Your task to perform on an android device: clear history in the chrome app Image 0: 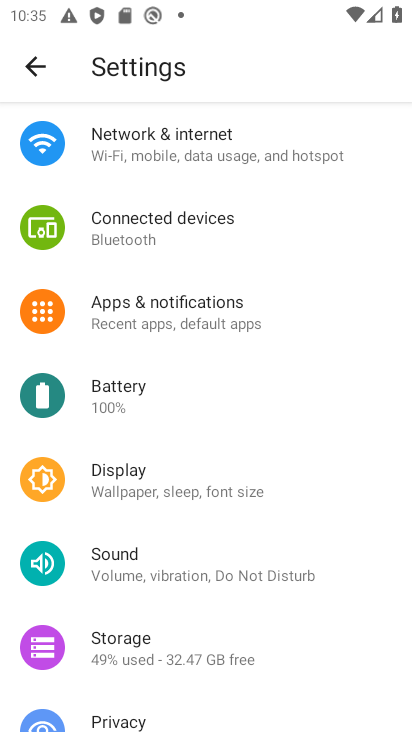
Step 0: press home button
Your task to perform on an android device: clear history in the chrome app Image 1: 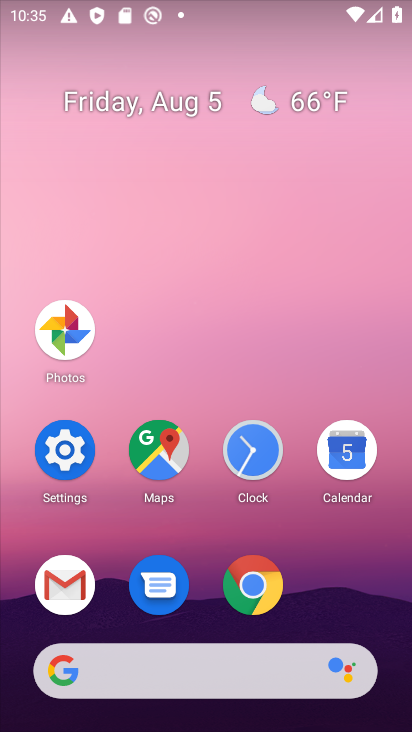
Step 1: click (253, 579)
Your task to perform on an android device: clear history in the chrome app Image 2: 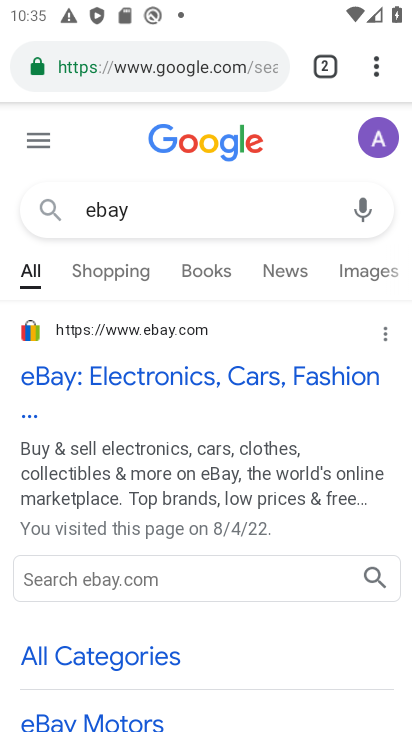
Step 2: click (380, 64)
Your task to perform on an android device: clear history in the chrome app Image 3: 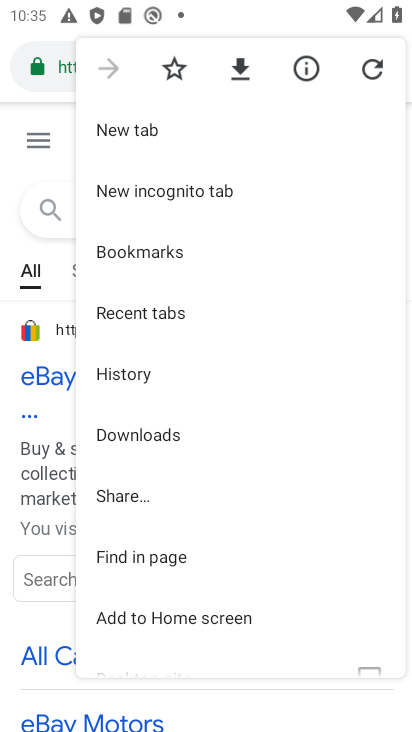
Step 3: click (130, 364)
Your task to perform on an android device: clear history in the chrome app Image 4: 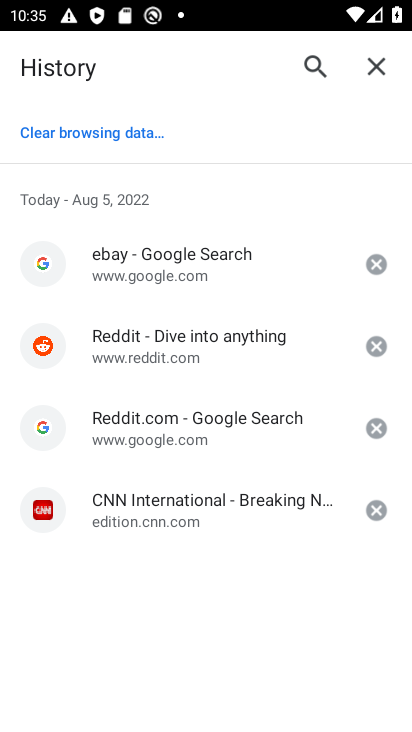
Step 4: click (94, 132)
Your task to perform on an android device: clear history in the chrome app Image 5: 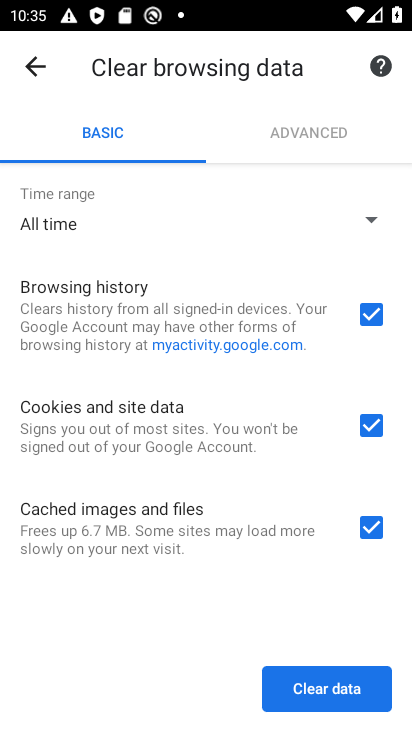
Step 5: click (332, 693)
Your task to perform on an android device: clear history in the chrome app Image 6: 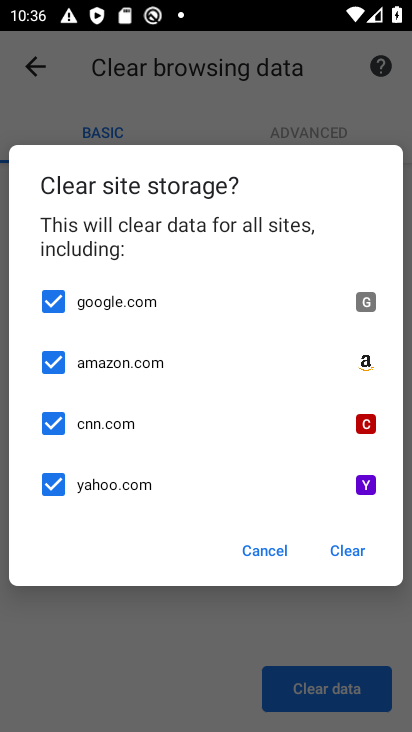
Step 6: click (339, 546)
Your task to perform on an android device: clear history in the chrome app Image 7: 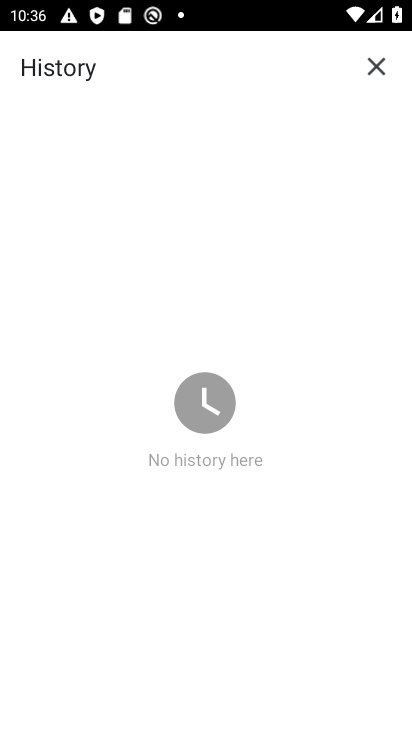
Step 7: task complete